Your task to perform on an android device: install app "The Home Depot" Image 0: 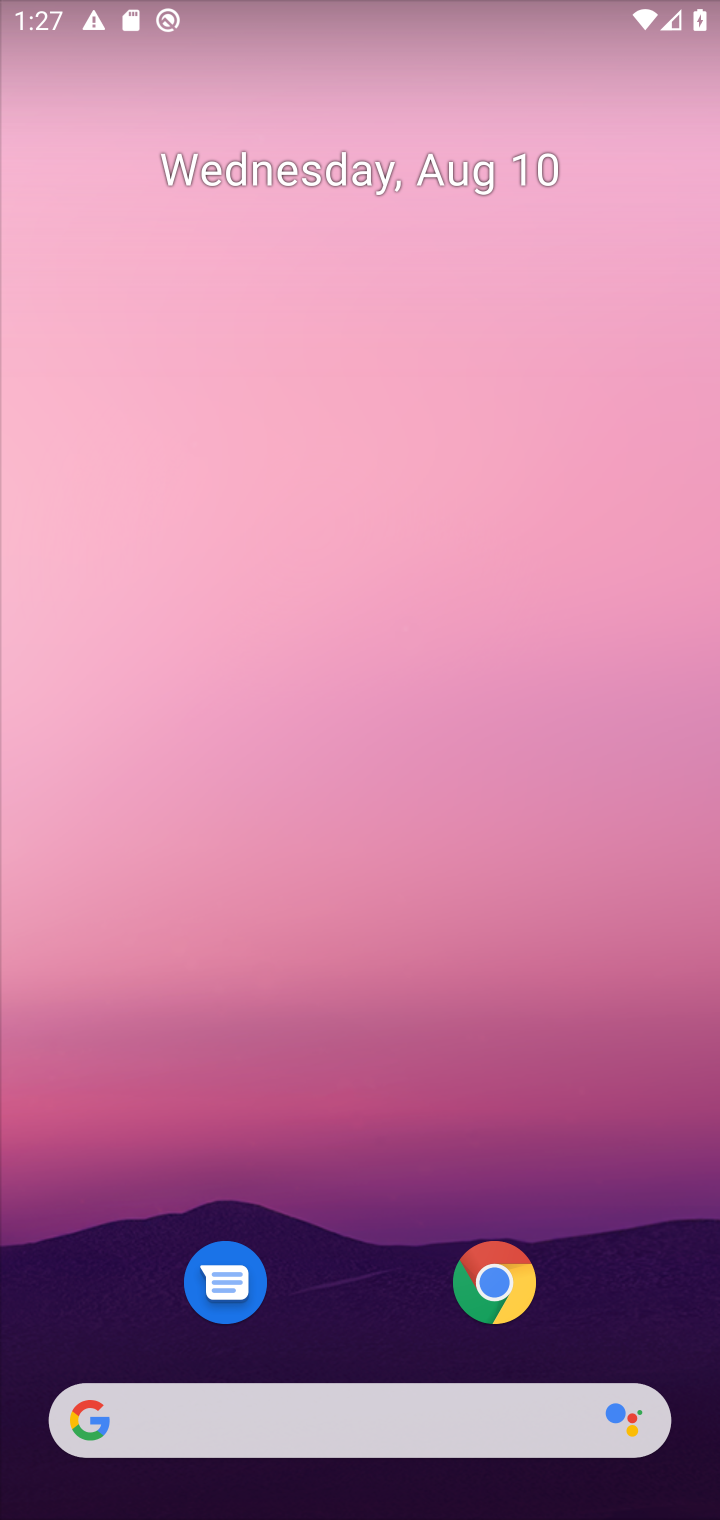
Step 0: drag from (320, 1356) to (592, 1128)
Your task to perform on an android device: install app "The Home Depot" Image 1: 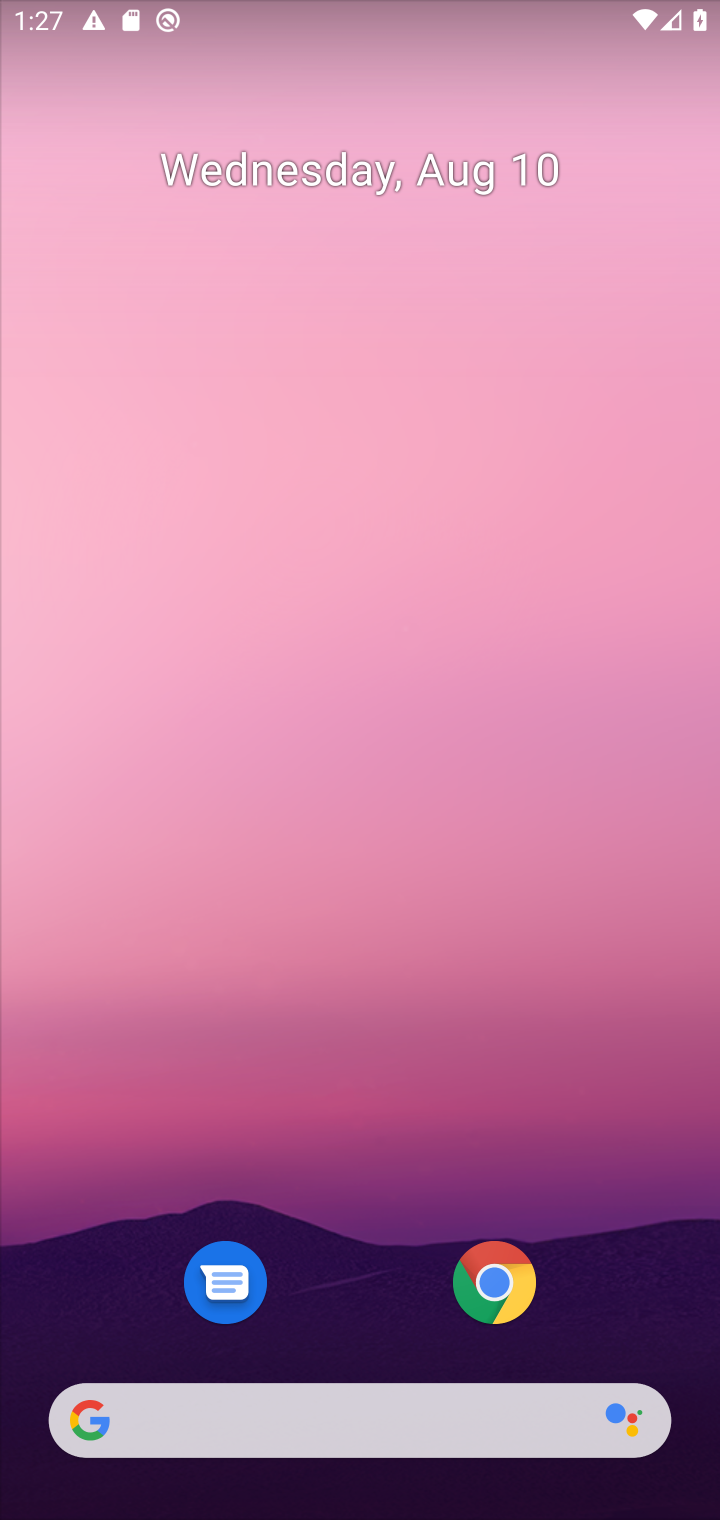
Step 1: drag from (379, 1290) to (487, 188)
Your task to perform on an android device: install app "The Home Depot" Image 2: 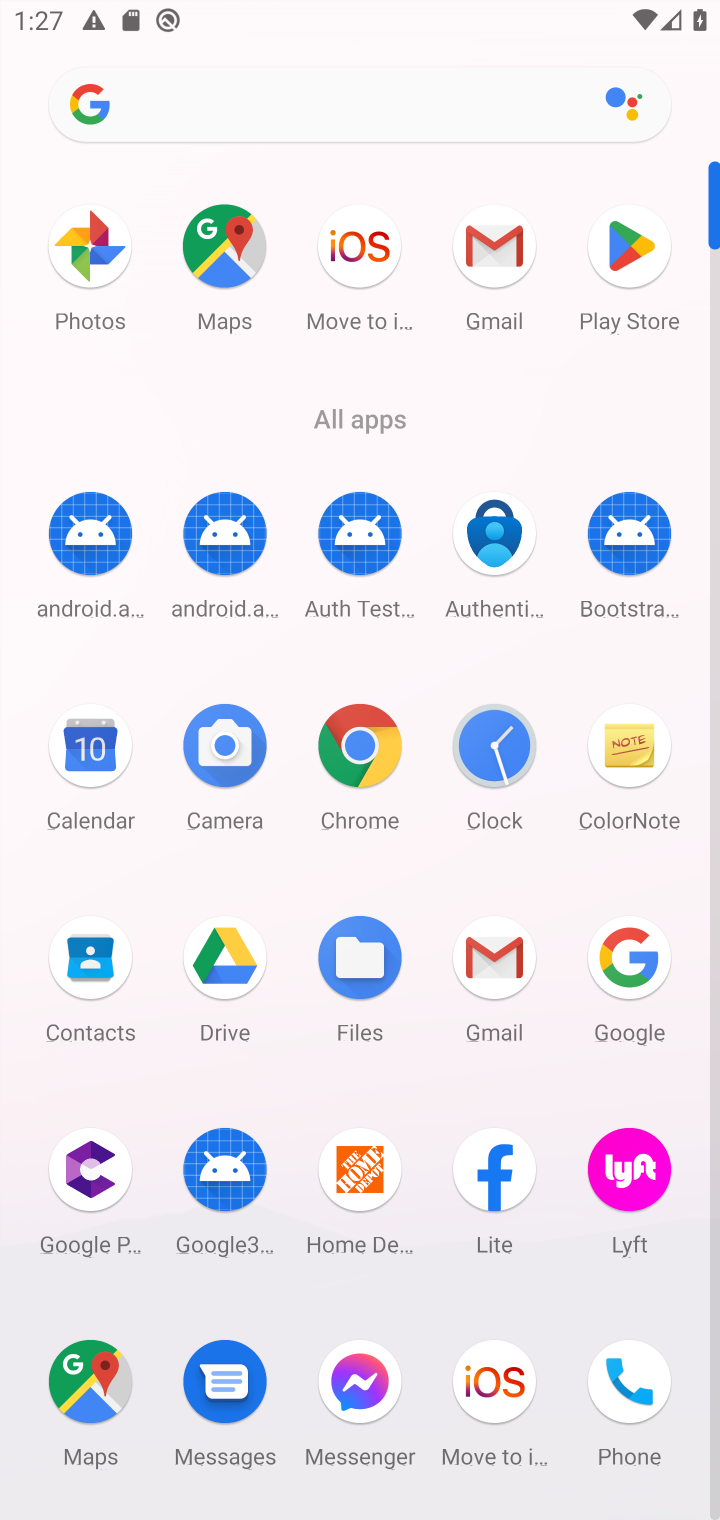
Step 2: click (641, 251)
Your task to perform on an android device: install app "The Home Depot" Image 3: 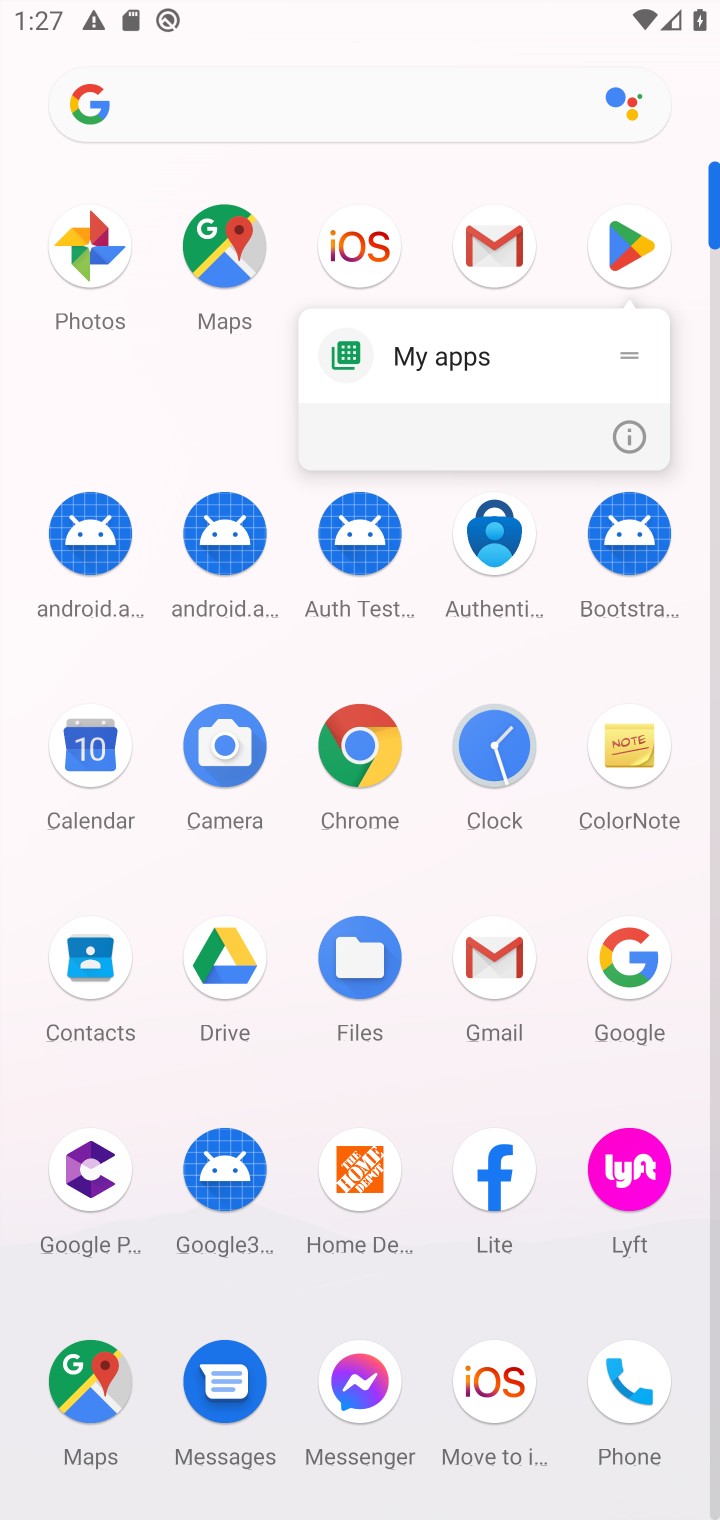
Step 3: click (623, 210)
Your task to perform on an android device: install app "The Home Depot" Image 4: 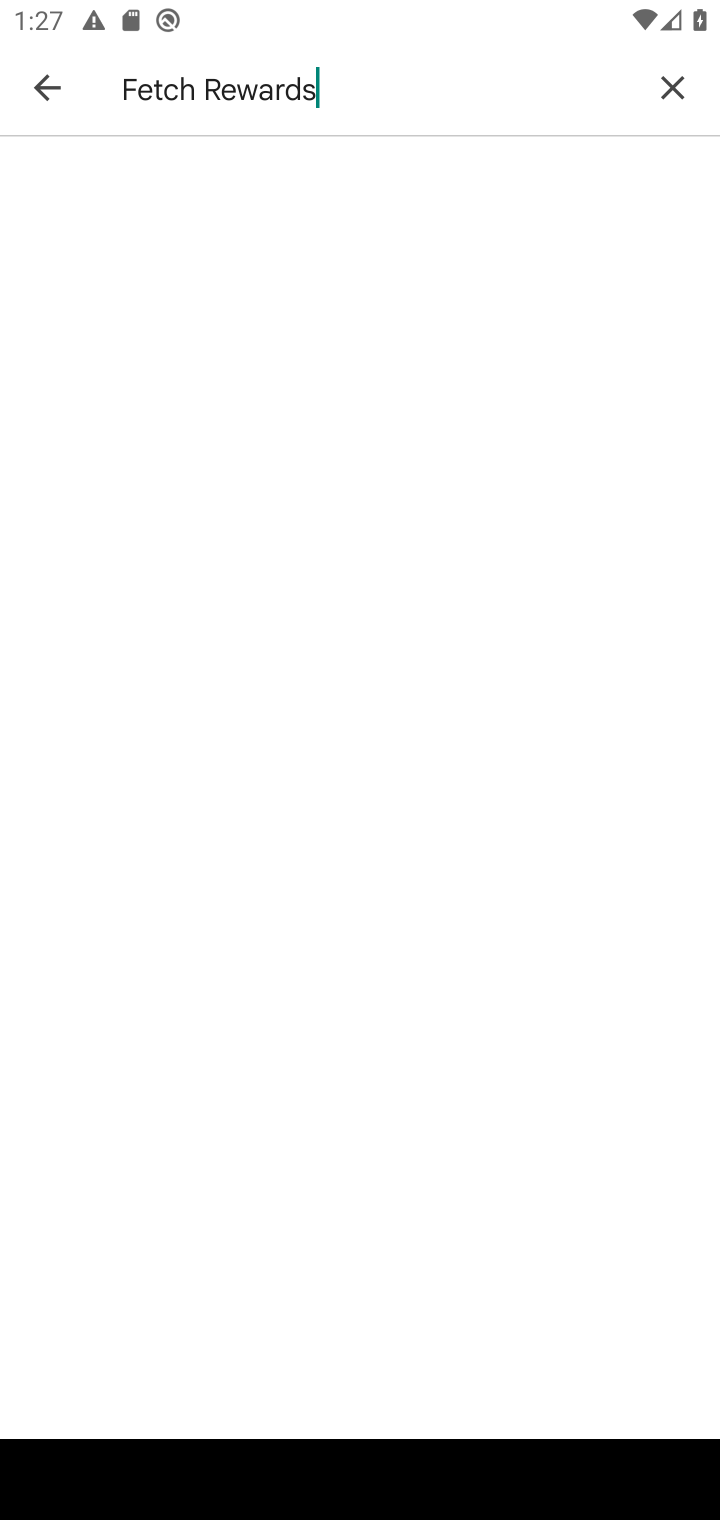
Step 4: click (53, 80)
Your task to perform on an android device: install app "The Home Depot" Image 5: 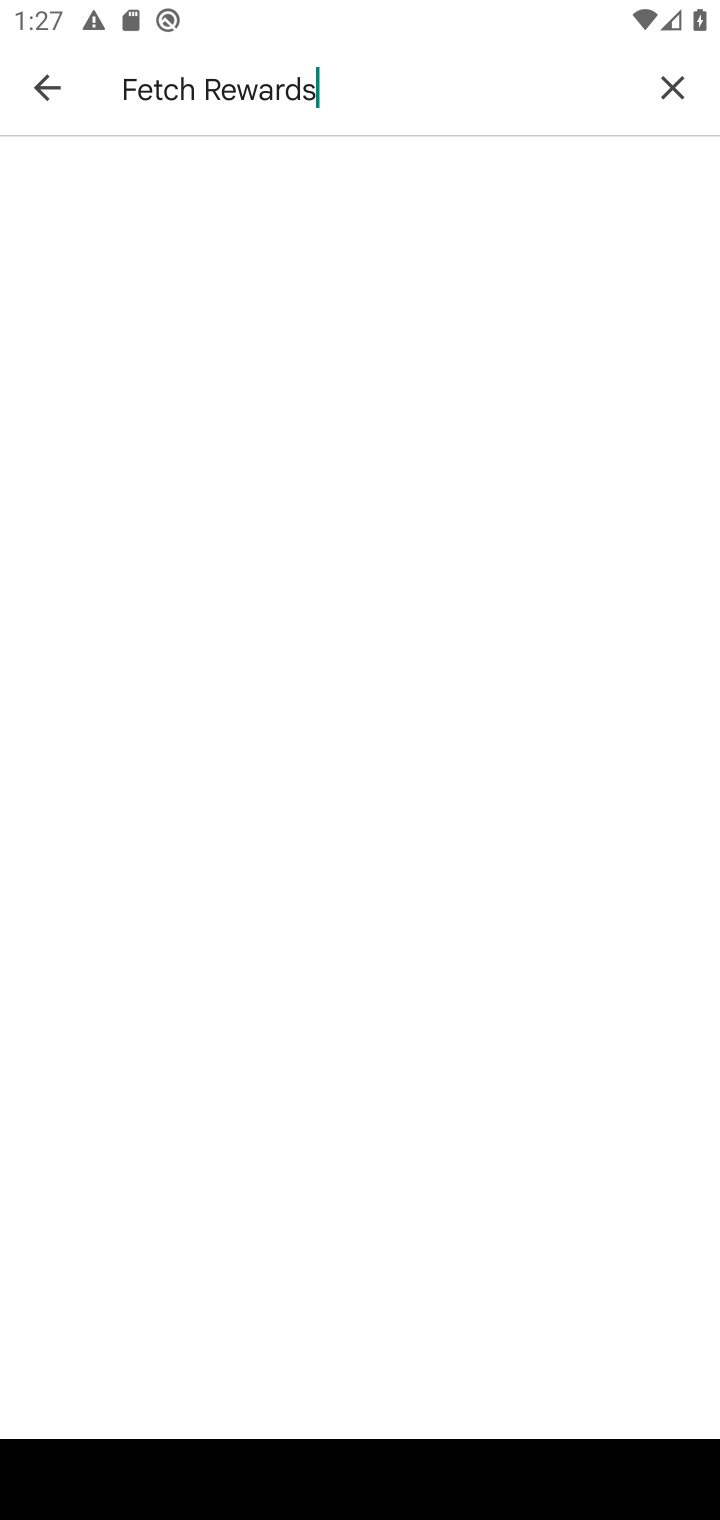
Step 5: click (671, 92)
Your task to perform on an android device: install app "The Home Depot" Image 6: 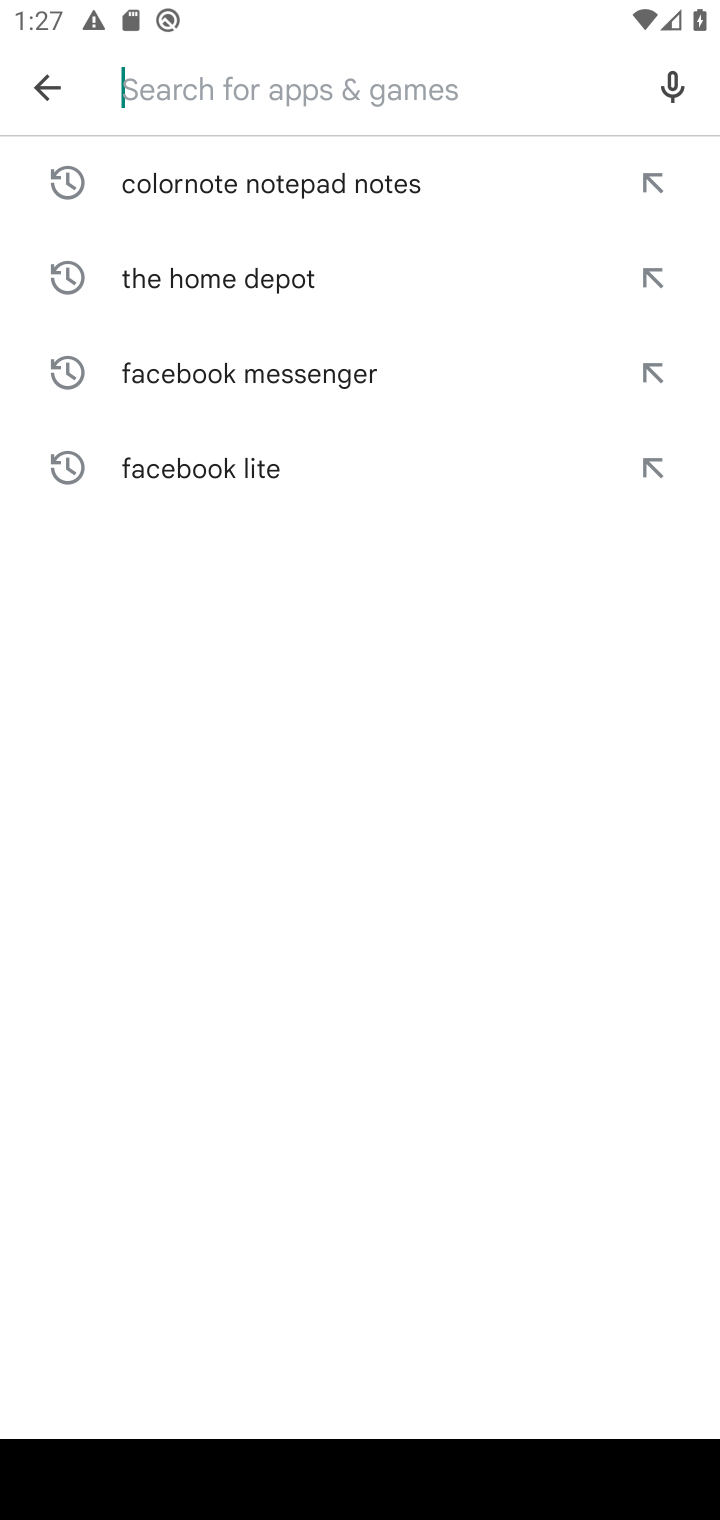
Step 6: type "The Home Depot"
Your task to perform on an android device: install app "The Home Depot" Image 7: 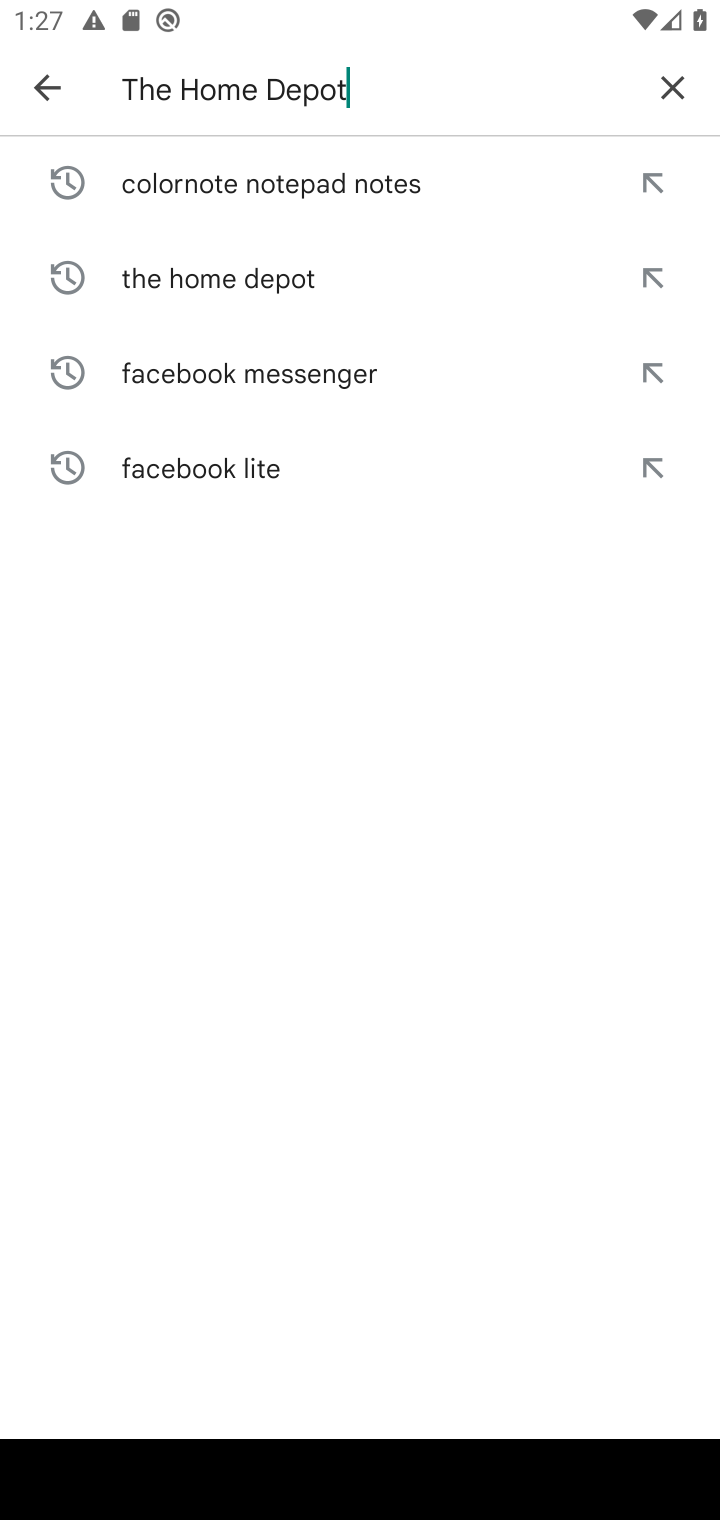
Step 7: type ""
Your task to perform on an android device: install app "The Home Depot" Image 8: 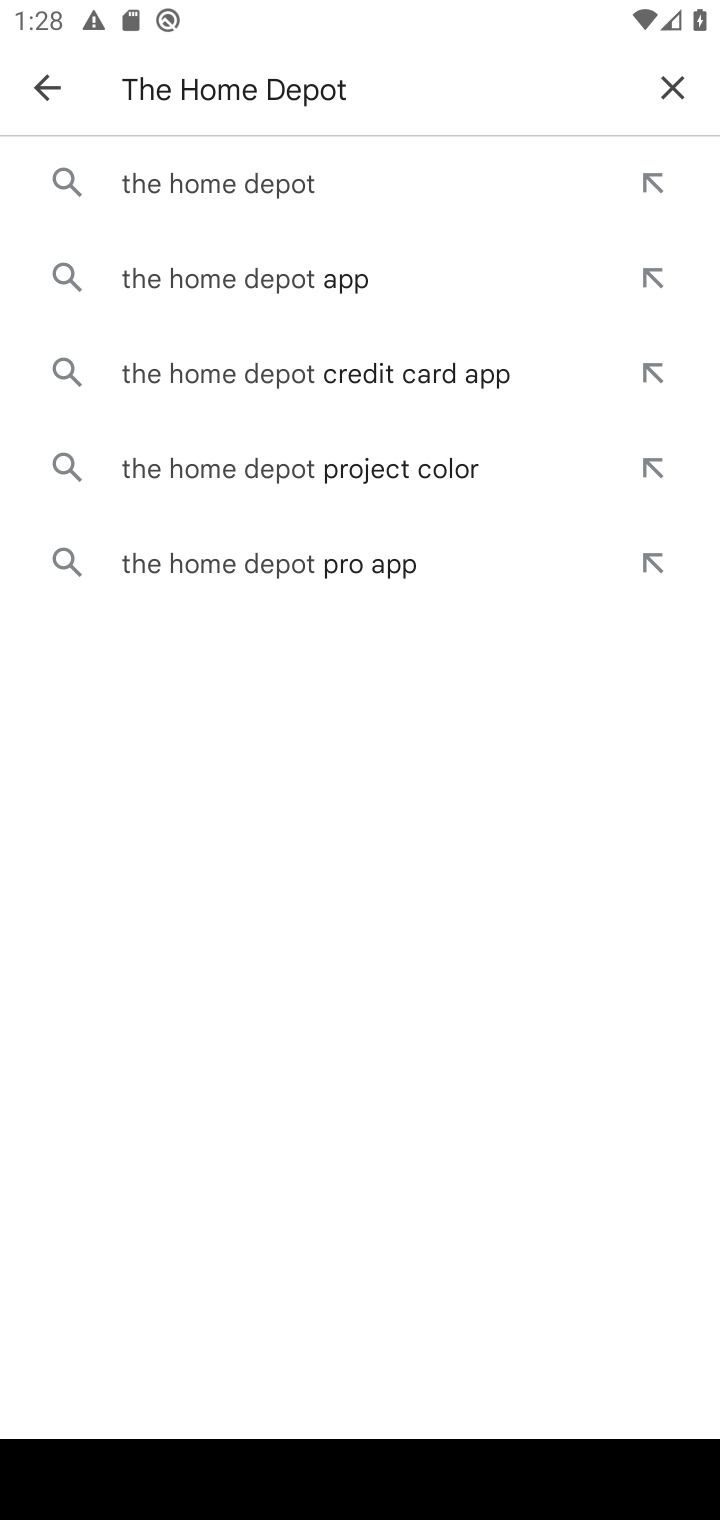
Step 8: click (298, 192)
Your task to perform on an android device: install app "The Home Depot" Image 9: 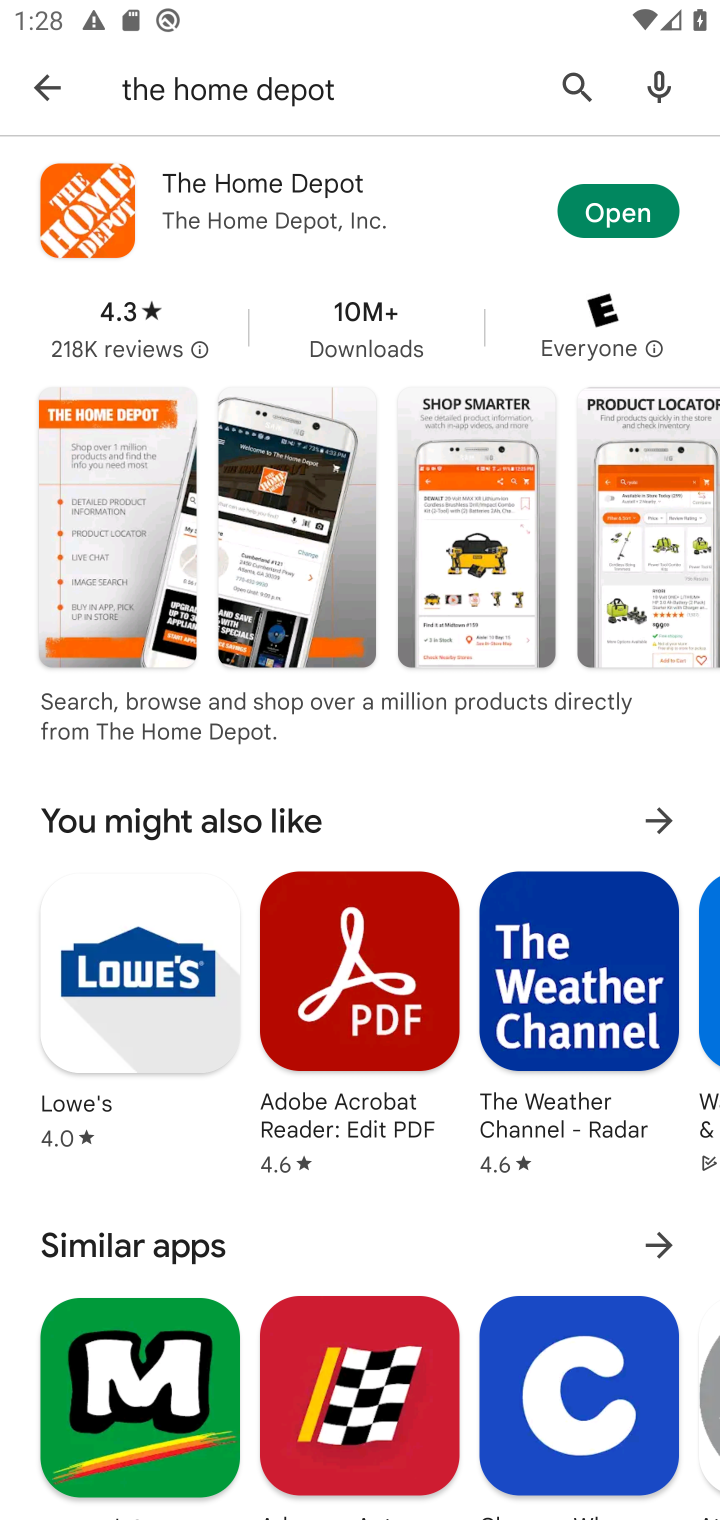
Step 9: click (260, 237)
Your task to perform on an android device: install app "The Home Depot" Image 10: 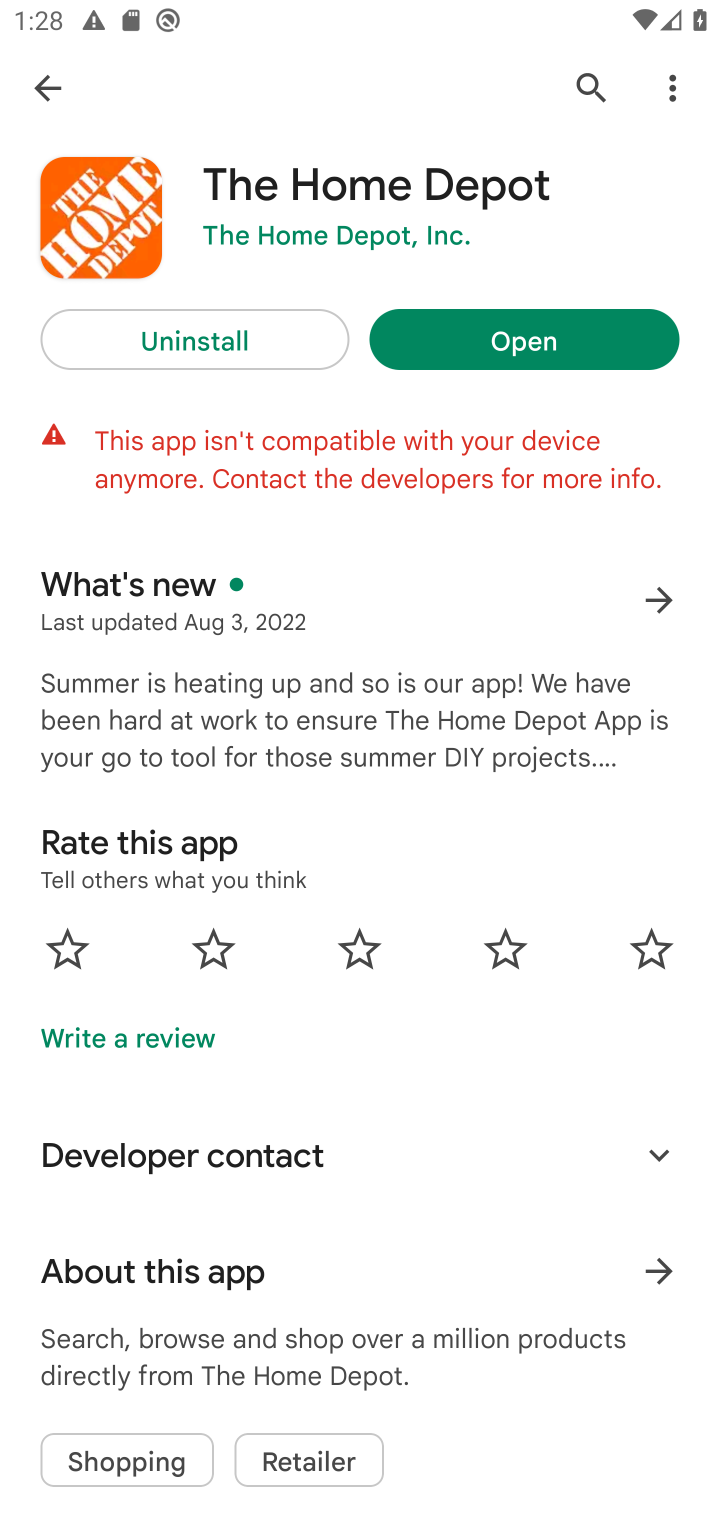
Step 10: task complete